Your task to perform on an android device: turn on notifications settings in the gmail app Image 0: 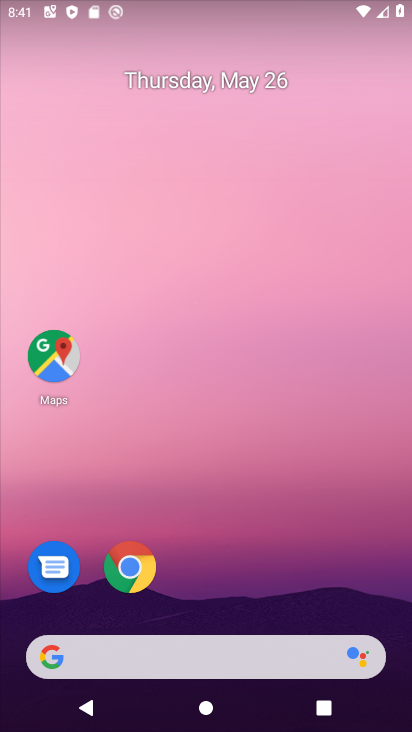
Step 0: drag from (219, 657) to (340, 66)
Your task to perform on an android device: turn on notifications settings in the gmail app Image 1: 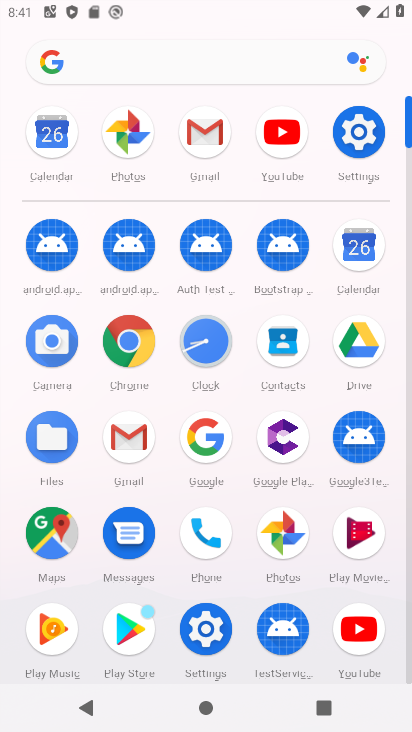
Step 1: click (196, 140)
Your task to perform on an android device: turn on notifications settings in the gmail app Image 2: 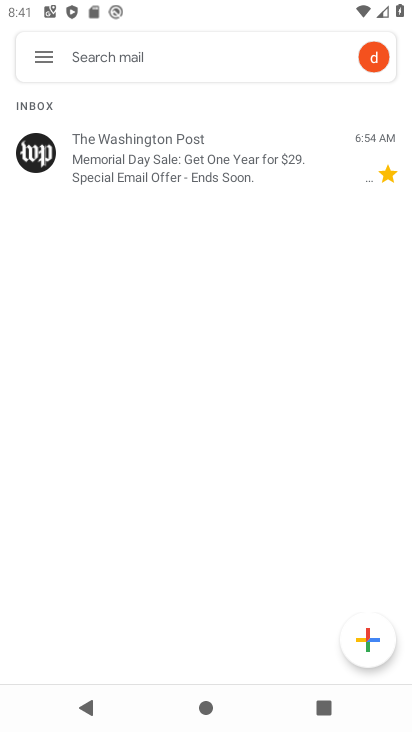
Step 2: click (47, 57)
Your task to perform on an android device: turn on notifications settings in the gmail app Image 3: 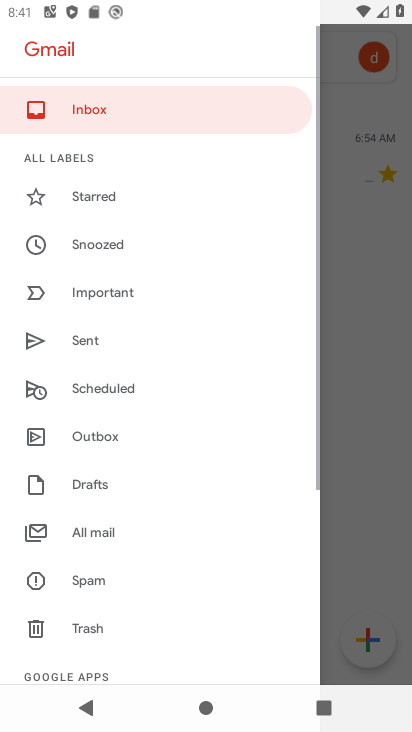
Step 3: drag from (219, 589) to (297, 116)
Your task to perform on an android device: turn on notifications settings in the gmail app Image 4: 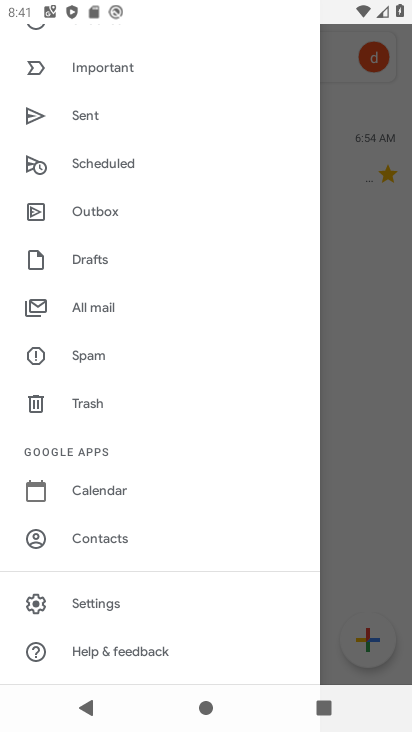
Step 4: click (107, 612)
Your task to perform on an android device: turn on notifications settings in the gmail app Image 5: 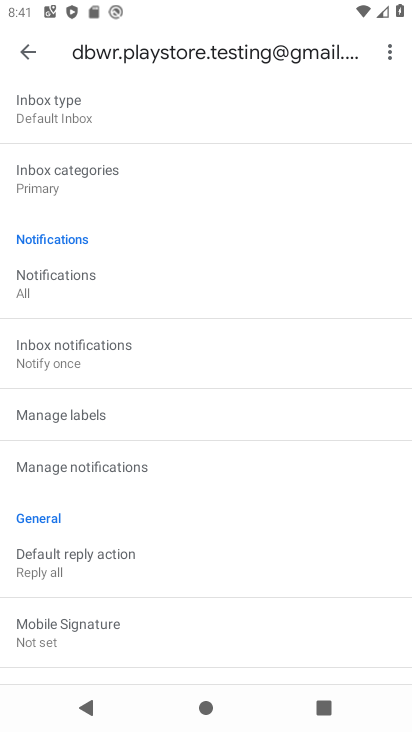
Step 5: click (43, 299)
Your task to perform on an android device: turn on notifications settings in the gmail app Image 6: 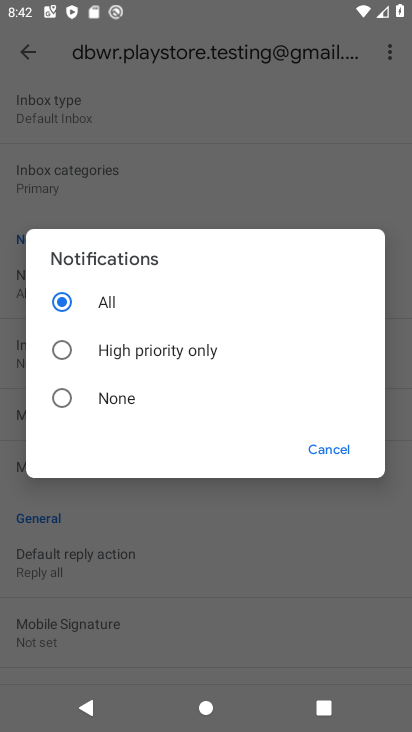
Step 6: task complete